Your task to perform on an android device: turn on data saver in the chrome app Image 0: 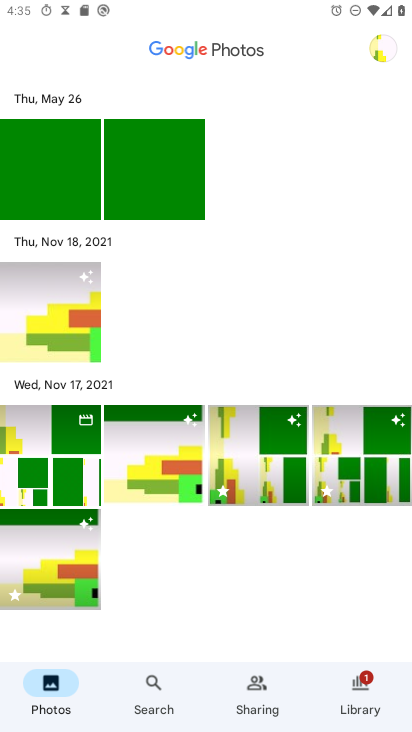
Step 0: press home button
Your task to perform on an android device: turn on data saver in the chrome app Image 1: 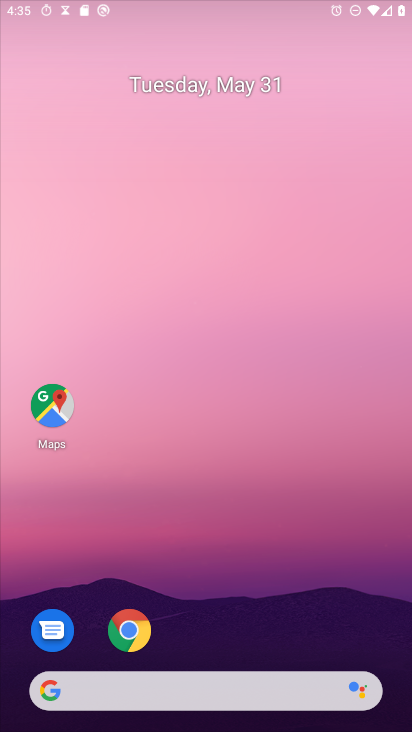
Step 1: drag from (241, 684) to (307, 6)
Your task to perform on an android device: turn on data saver in the chrome app Image 2: 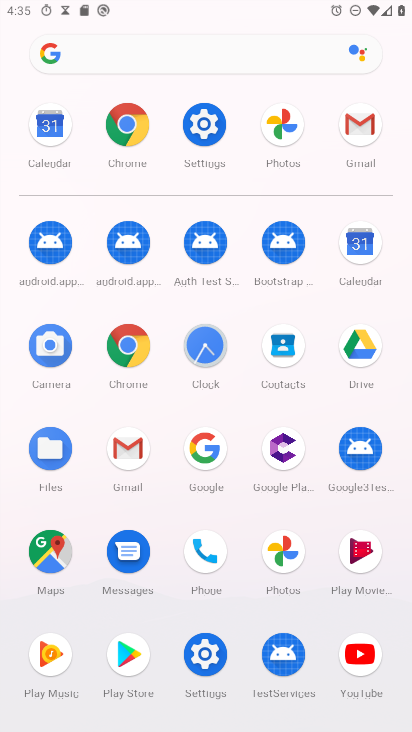
Step 2: click (142, 341)
Your task to perform on an android device: turn on data saver in the chrome app Image 3: 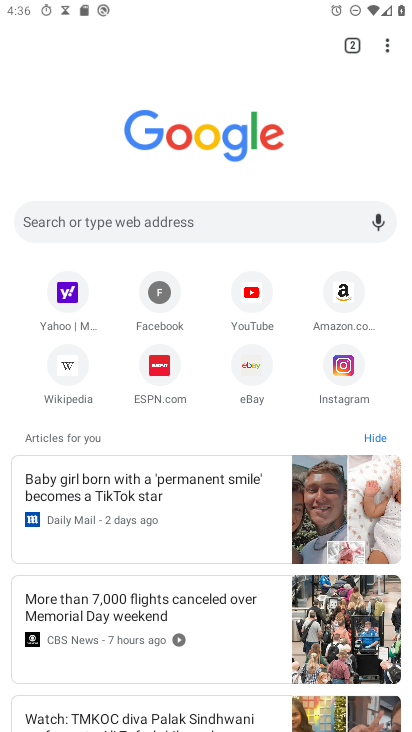
Step 3: drag from (383, 37) to (231, 375)
Your task to perform on an android device: turn on data saver in the chrome app Image 4: 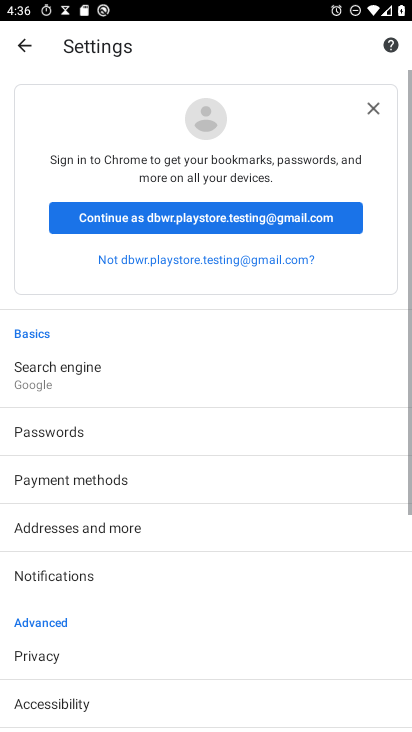
Step 4: drag from (282, 575) to (232, 163)
Your task to perform on an android device: turn on data saver in the chrome app Image 5: 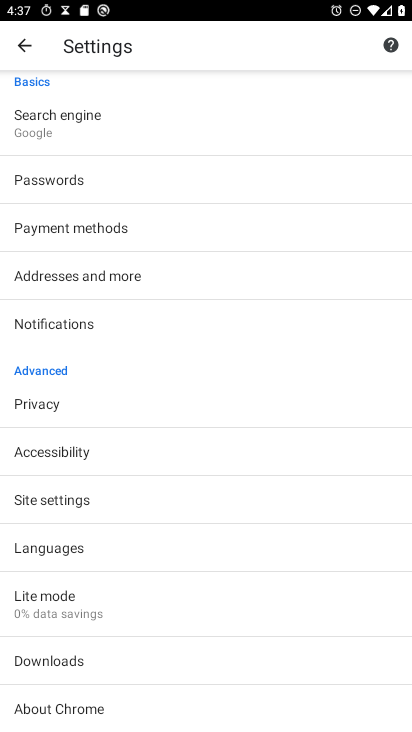
Step 5: click (129, 505)
Your task to perform on an android device: turn on data saver in the chrome app Image 6: 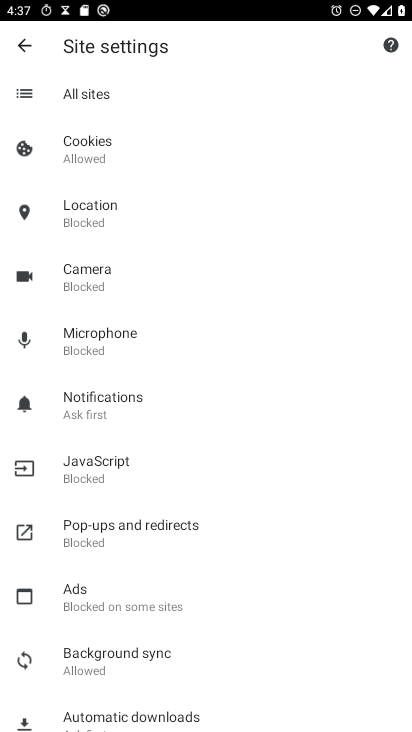
Step 6: drag from (286, 616) to (304, 306)
Your task to perform on an android device: turn on data saver in the chrome app Image 7: 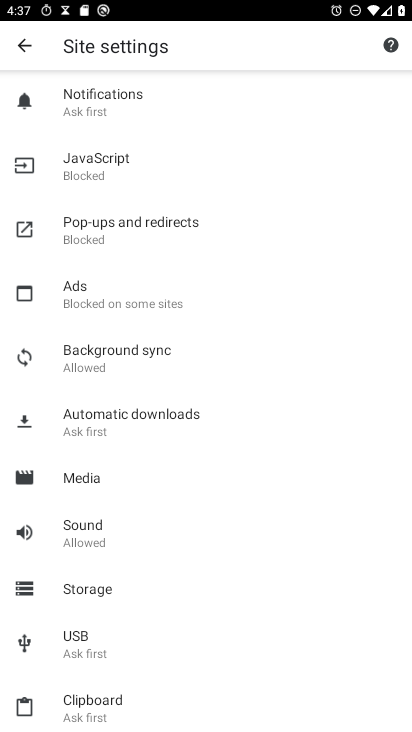
Step 7: drag from (274, 640) to (299, 316)
Your task to perform on an android device: turn on data saver in the chrome app Image 8: 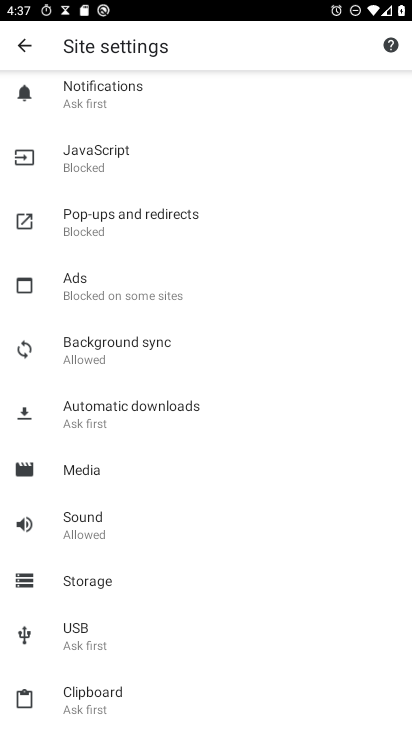
Step 8: press back button
Your task to perform on an android device: turn on data saver in the chrome app Image 9: 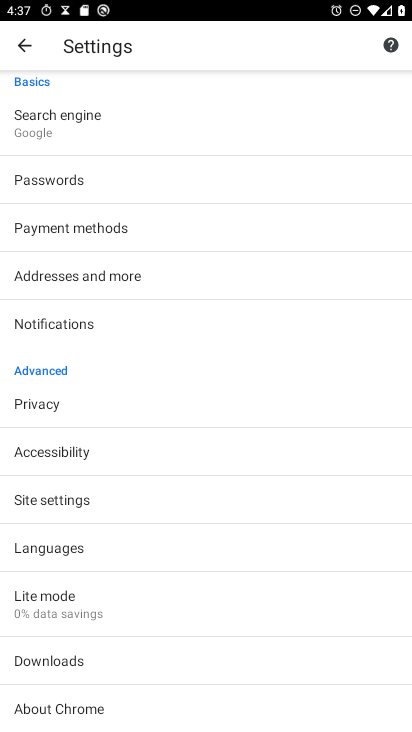
Step 9: click (198, 622)
Your task to perform on an android device: turn on data saver in the chrome app Image 10: 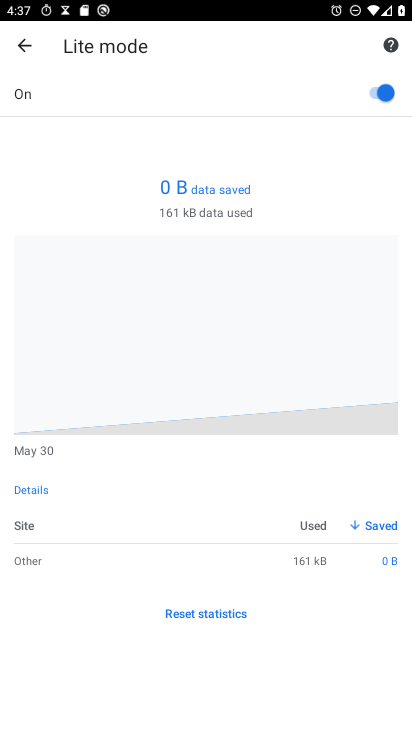
Step 10: task complete